Your task to perform on an android device: delete a single message in the gmail app Image 0: 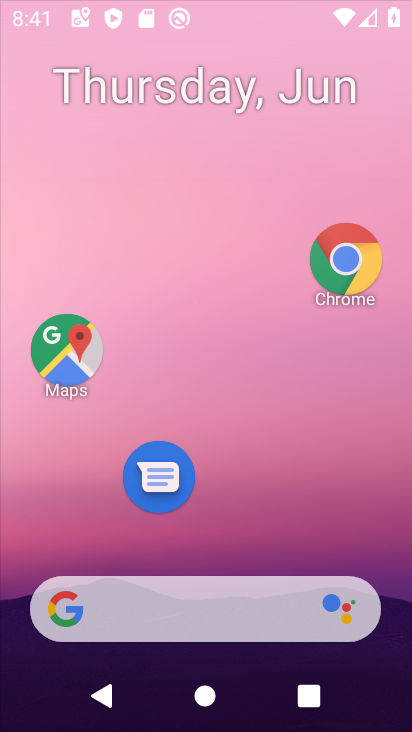
Step 0: click (233, 55)
Your task to perform on an android device: delete a single message in the gmail app Image 1: 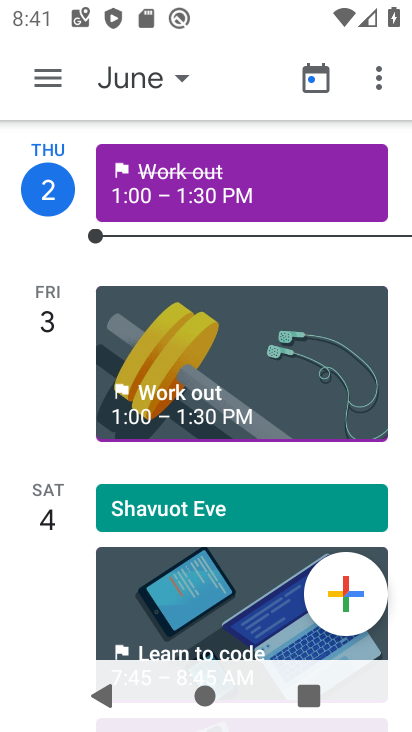
Step 1: drag from (210, 490) to (302, 0)
Your task to perform on an android device: delete a single message in the gmail app Image 2: 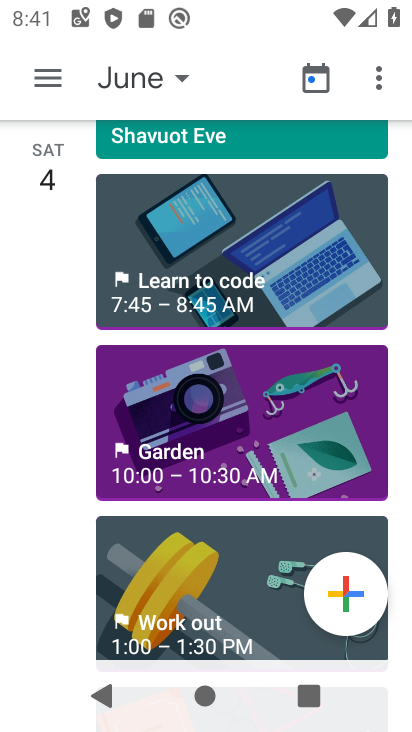
Step 2: press home button
Your task to perform on an android device: delete a single message in the gmail app Image 3: 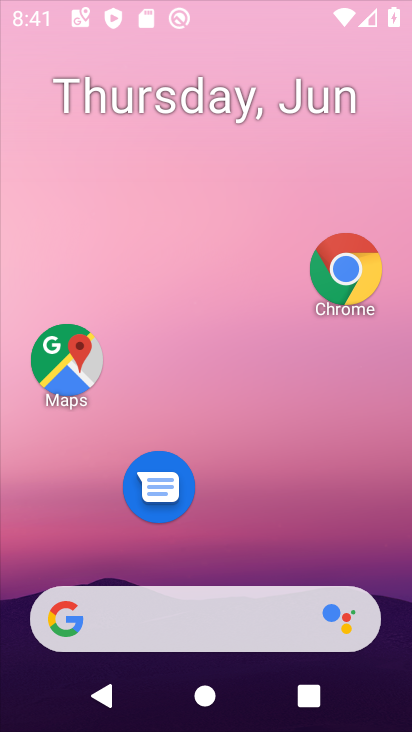
Step 3: drag from (169, 505) to (245, 10)
Your task to perform on an android device: delete a single message in the gmail app Image 4: 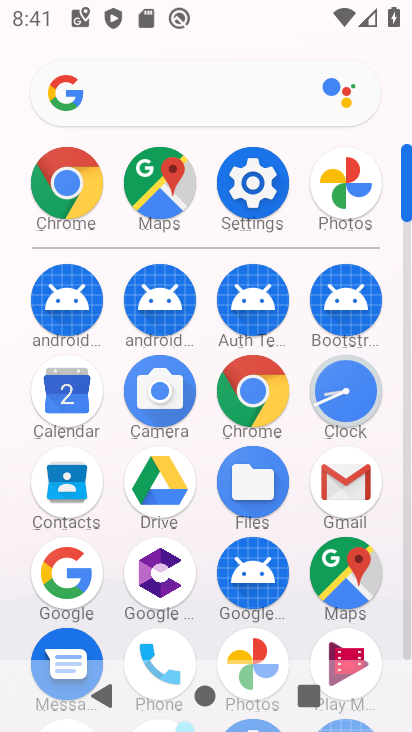
Step 4: click (337, 500)
Your task to perform on an android device: delete a single message in the gmail app Image 5: 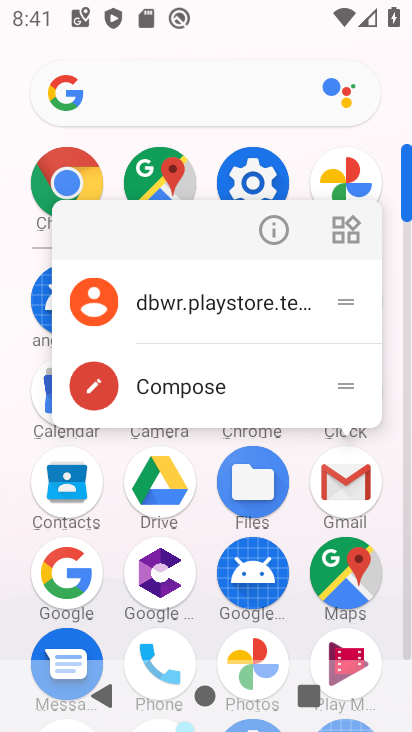
Step 5: click (260, 244)
Your task to perform on an android device: delete a single message in the gmail app Image 6: 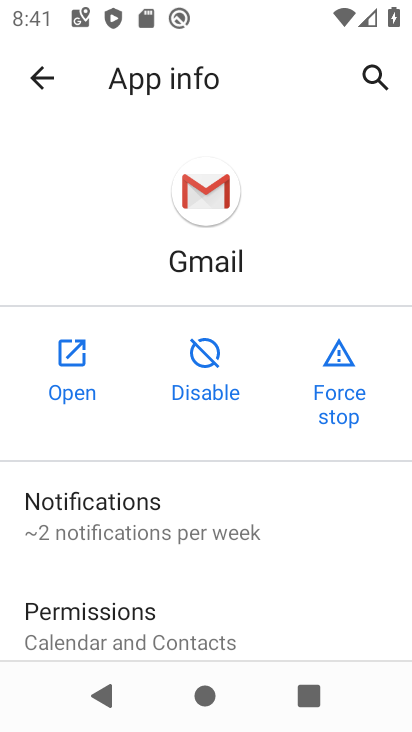
Step 6: click (71, 360)
Your task to perform on an android device: delete a single message in the gmail app Image 7: 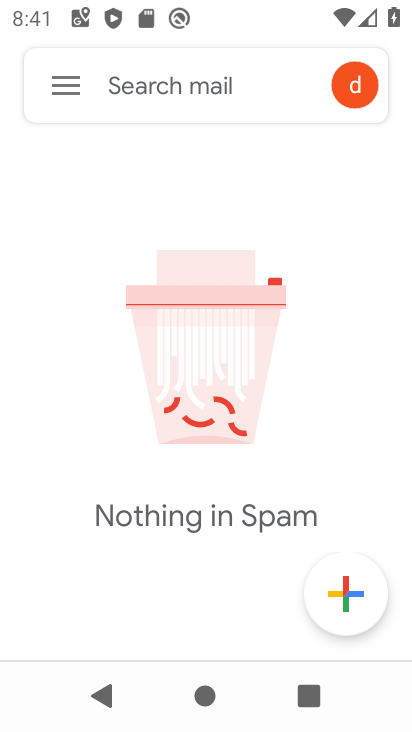
Step 7: click (52, 77)
Your task to perform on an android device: delete a single message in the gmail app Image 8: 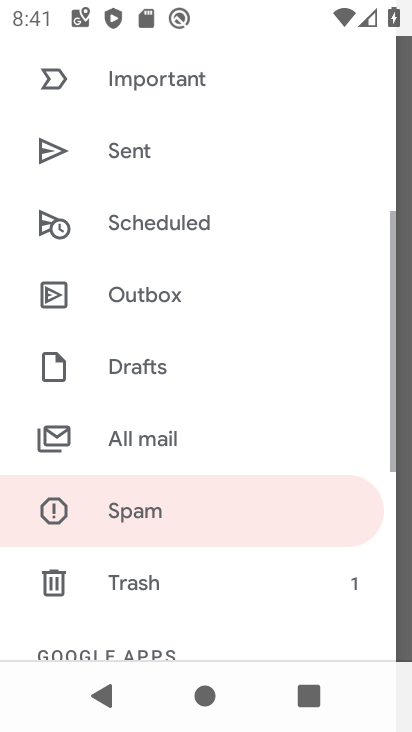
Step 8: drag from (205, 528) to (259, 101)
Your task to perform on an android device: delete a single message in the gmail app Image 9: 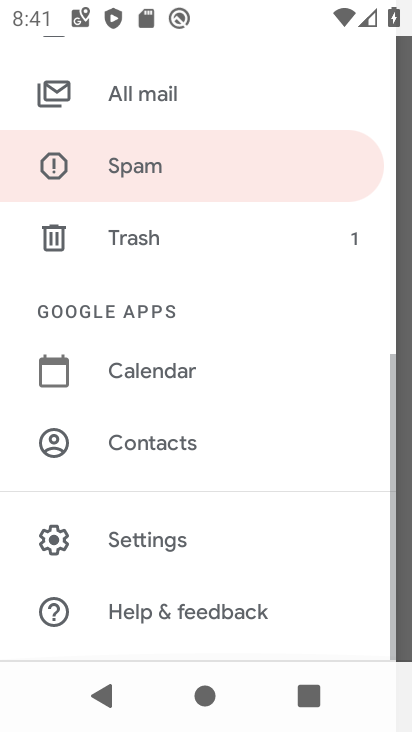
Step 9: drag from (250, 93) to (238, 717)
Your task to perform on an android device: delete a single message in the gmail app Image 10: 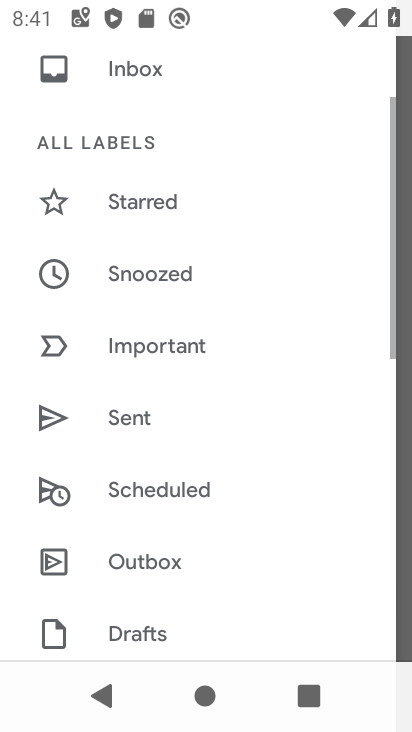
Step 10: drag from (172, 165) to (207, 722)
Your task to perform on an android device: delete a single message in the gmail app Image 11: 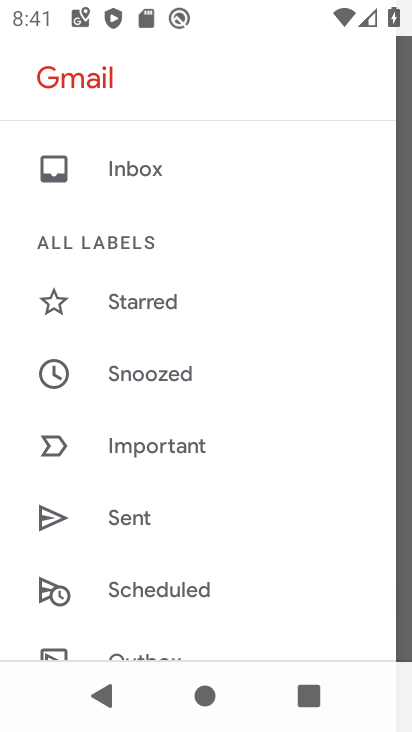
Step 11: click (172, 165)
Your task to perform on an android device: delete a single message in the gmail app Image 12: 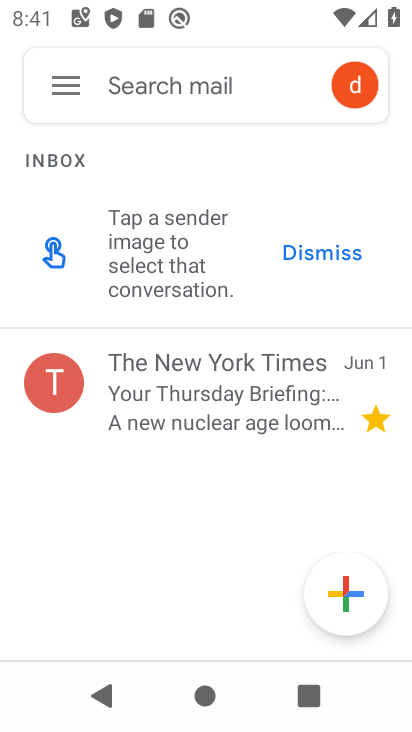
Step 12: drag from (193, 430) to (229, 126)
Your task to perform on an android device: delete a single message in the gmail app Image 13: 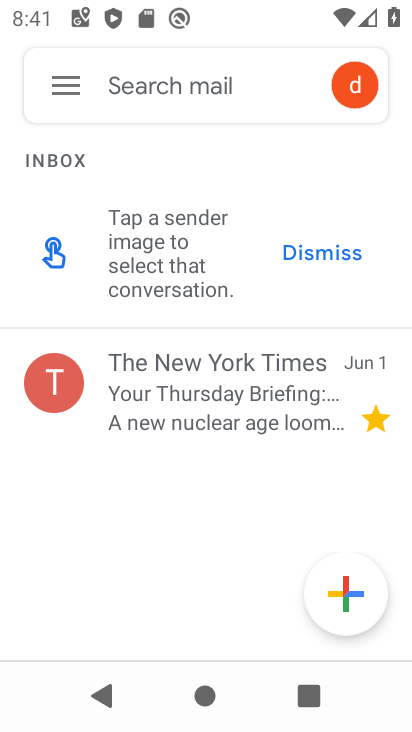
Step 13: click (59, 369)
Your task to perform on an android device: delete a single message in the gmail app Image 14: 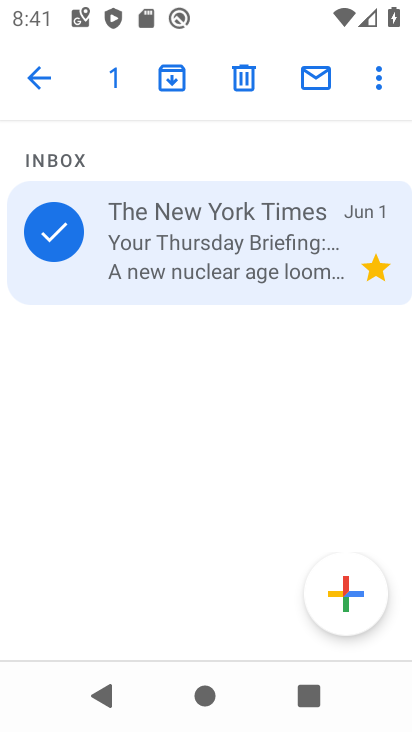
Step 14: click (242, 74)
Your task to perform on an android device: delete a single message in the gmail app Image 15: 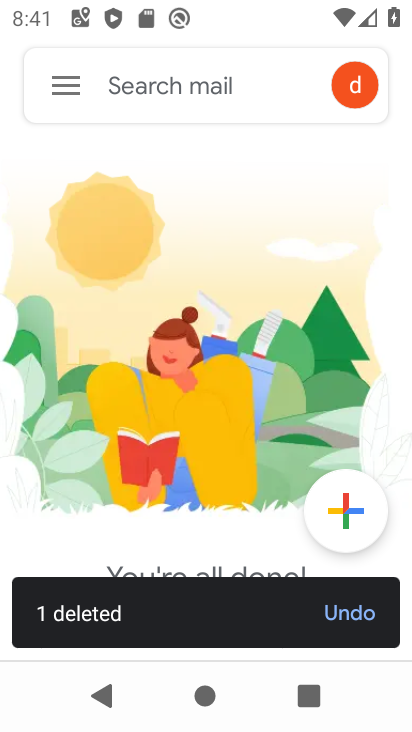
Step 15: task complete